Your task to perform on an android device: Open wifi settings Image 0: 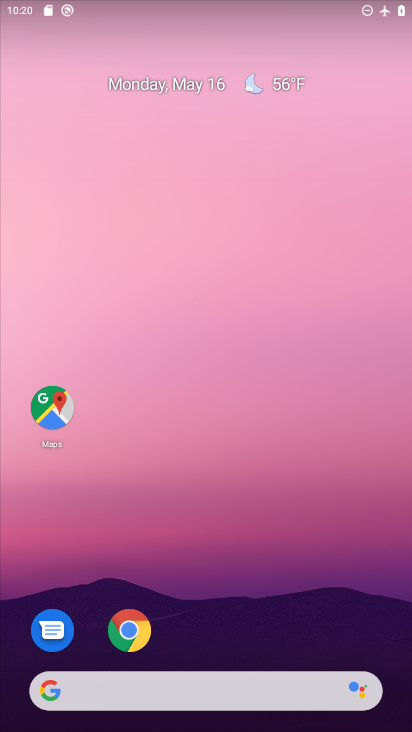
Step 0: drag from (210, 607) to (295, 4)
Your task to perform on an android device: Open wifi settings Image 1: 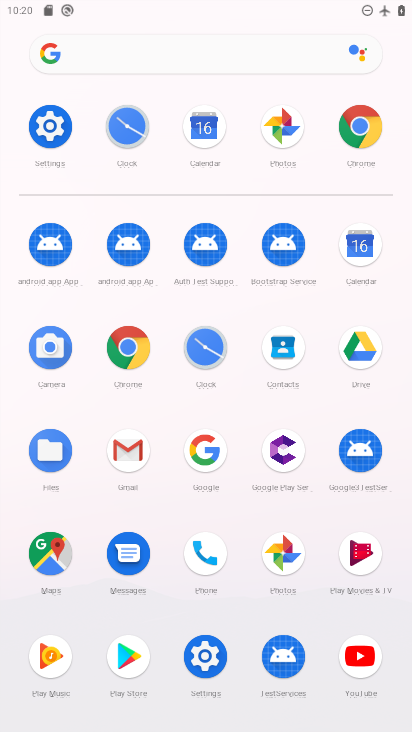
Step 1: click (53, 152)
Your task to perform on an android device: Open wifi settings Image 2: 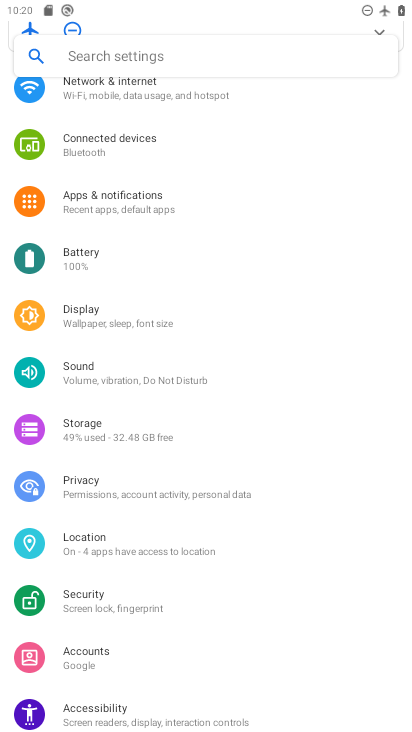
Step 2: click (145, 103)
Your task to perform on an android device: Open wifi settings Image 3: 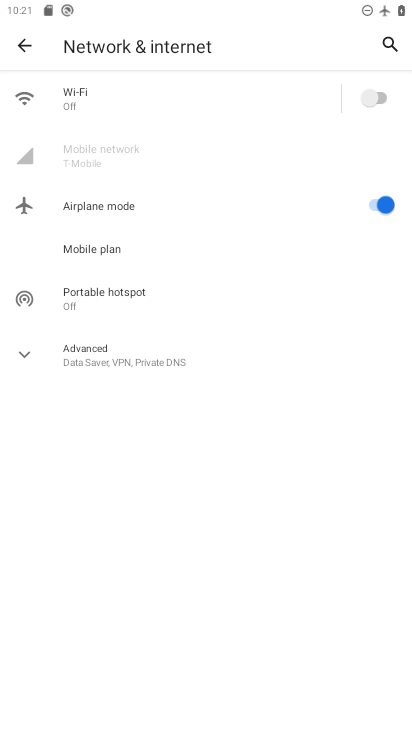
Step 3: click (109, 108)
Your task to perform on an android device: Open wifi settings Image 4: 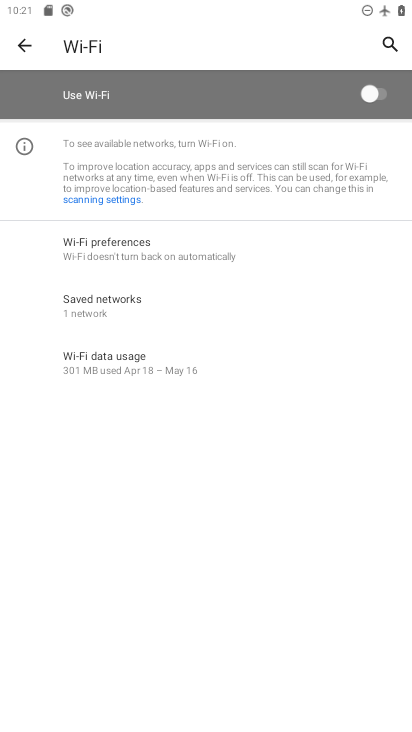
Step 4: task complete